Your task to perform on an android device: Empty the shopping cart on bestbuy.com. Search for corsair k70 on bestbuy.com, select the first entry, and add it to the cart. Image 0: 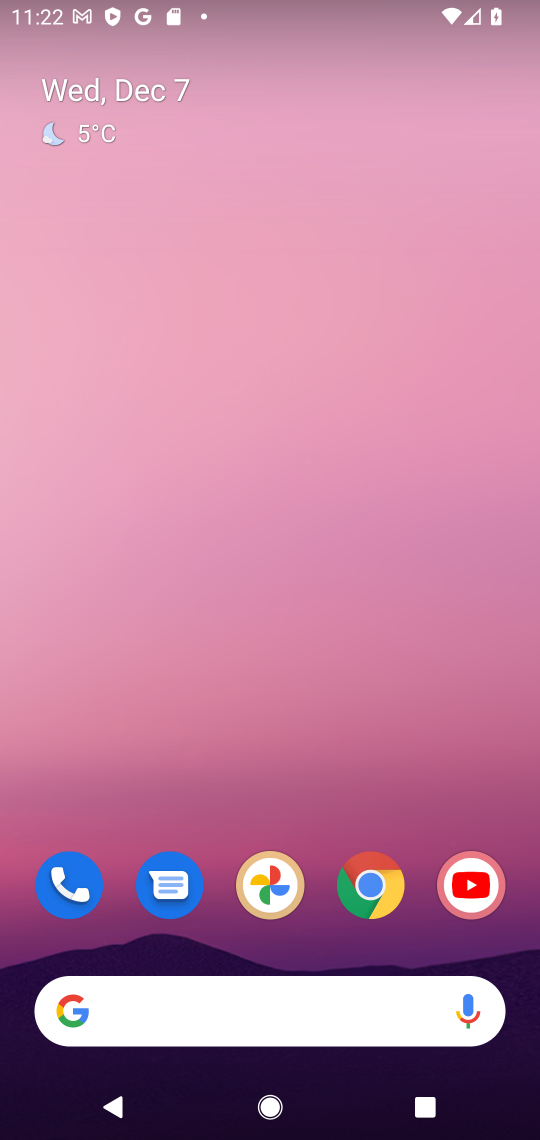
Step 0: click (372, 879)
Your task to perform on an android device: Empty the shopping cart on bestbuy.com. Search for corsair k70 on bestbuy.com, select the first entry, and add it to the cart. Image 1: 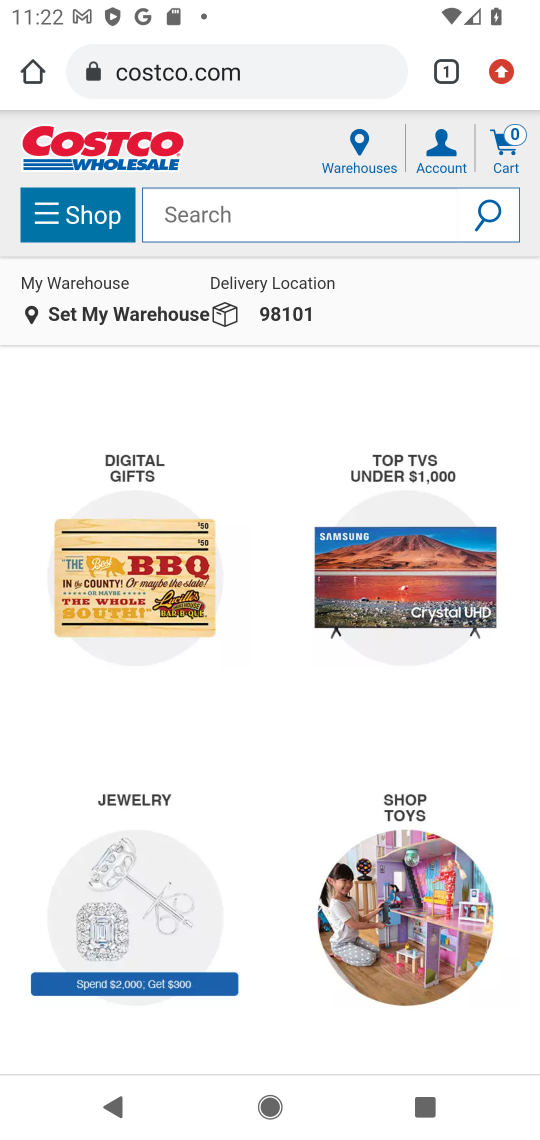
Step 1: click (288, 71)
Your task to perform on an android device: Empty the shopping cart on bestbuy.com. Search for corsair k70 on bestbuy.com, select the first entry, and add it to the cart. Image 2: 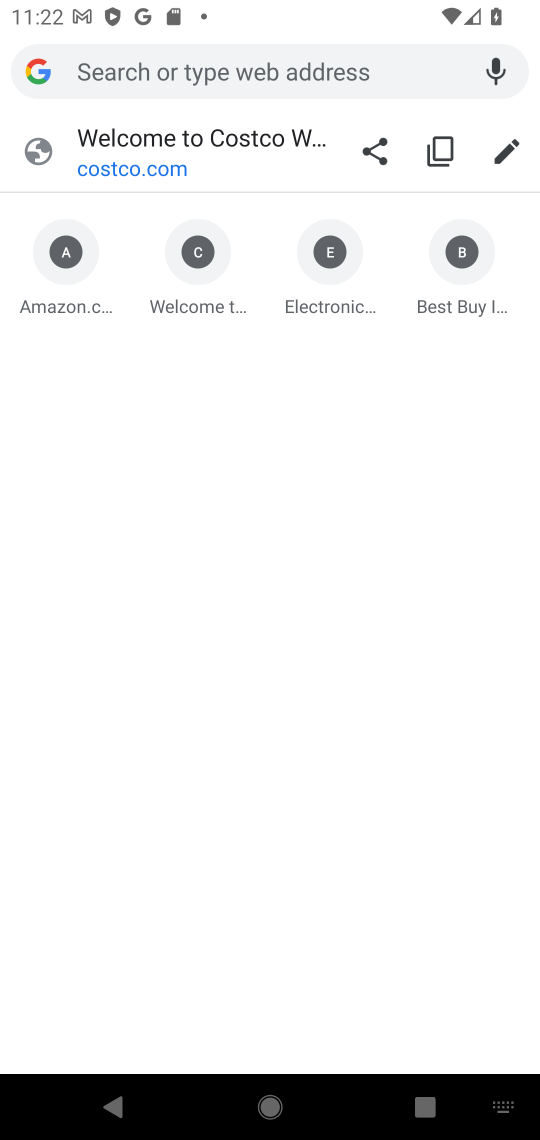
Step 2: type "BESTBUY"
Your task to perform on an android device: Empty the shopping cart on bestbuy.com. Search for corsair k70 on bestbuy.com, select the first entry, and add it to the cart. Image 3: 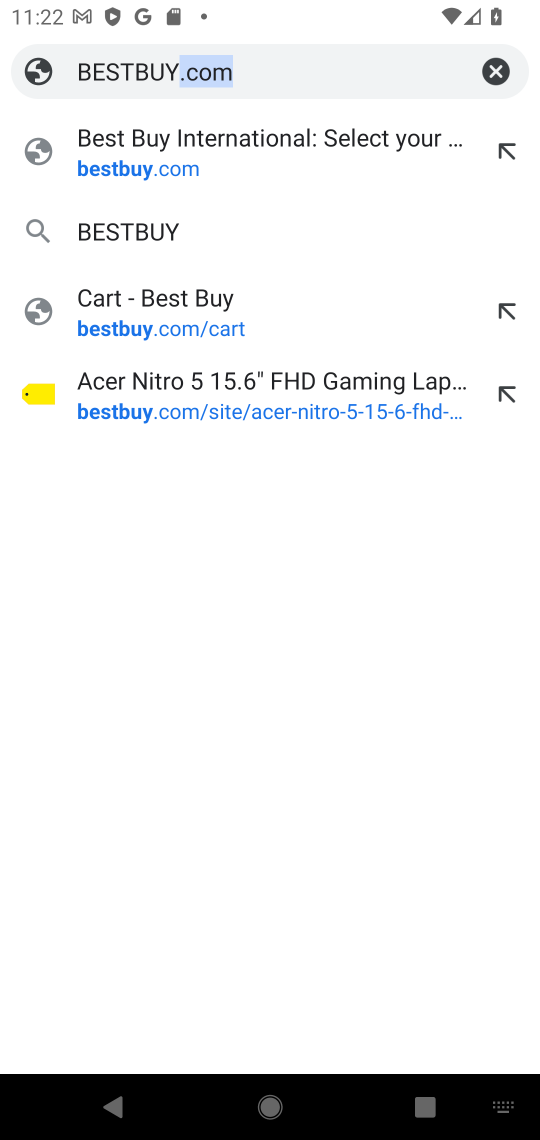
Step 3: click (205, 153)
Your task to perform on an android device: Empty the shopping cart on bestbuy.com. Search for corsair k70 on bestbuy.com, select the first entry, and add it to the cart. Image 4: 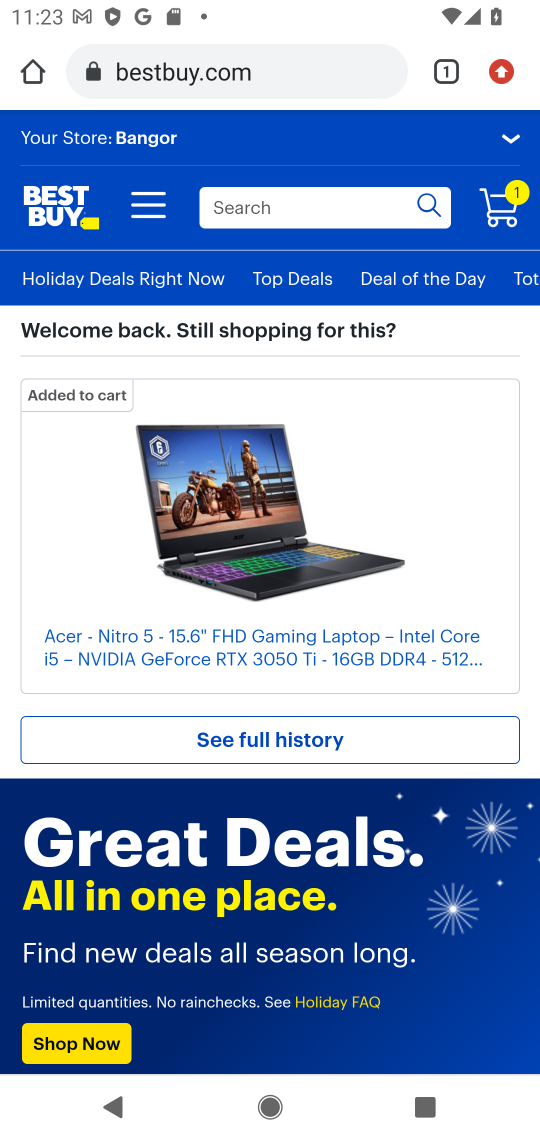
Step 4: click (506, 204)
Your task to perform on an android device: Empty the shopping cart on bestbuy.com. Search for corsair k70 on bestbuy.com, select the first entry, and add it to the cart. Image 5: 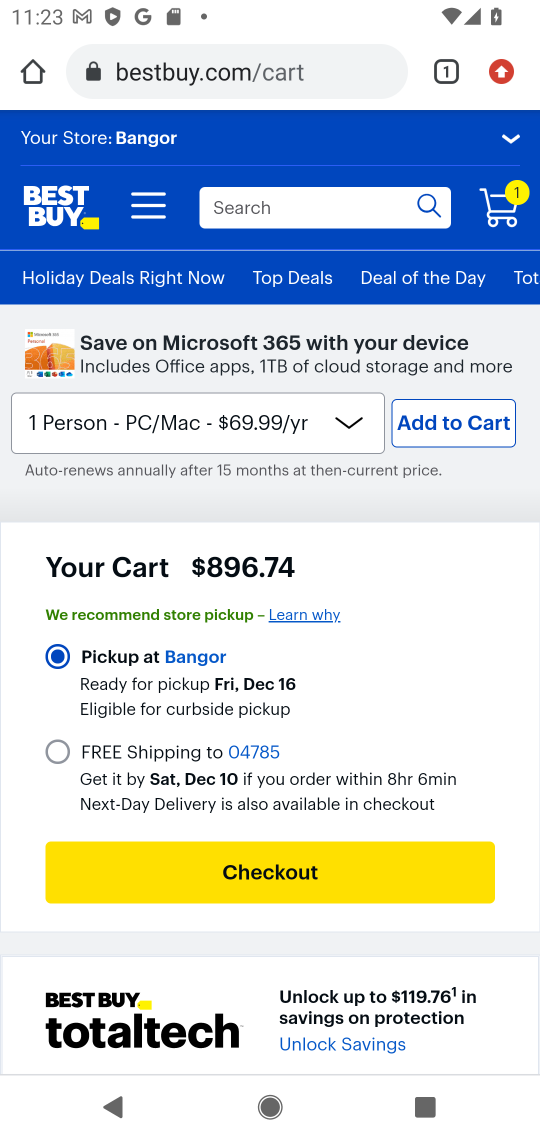
Step 5: drag from (261, 950) to (290, 337)
Your task to perform on an android device: Empty the shopping cart on bestbuy.com. Search for corsair k70 on bestbuy.com, select the first entry, and add it to the cart. Image 6: 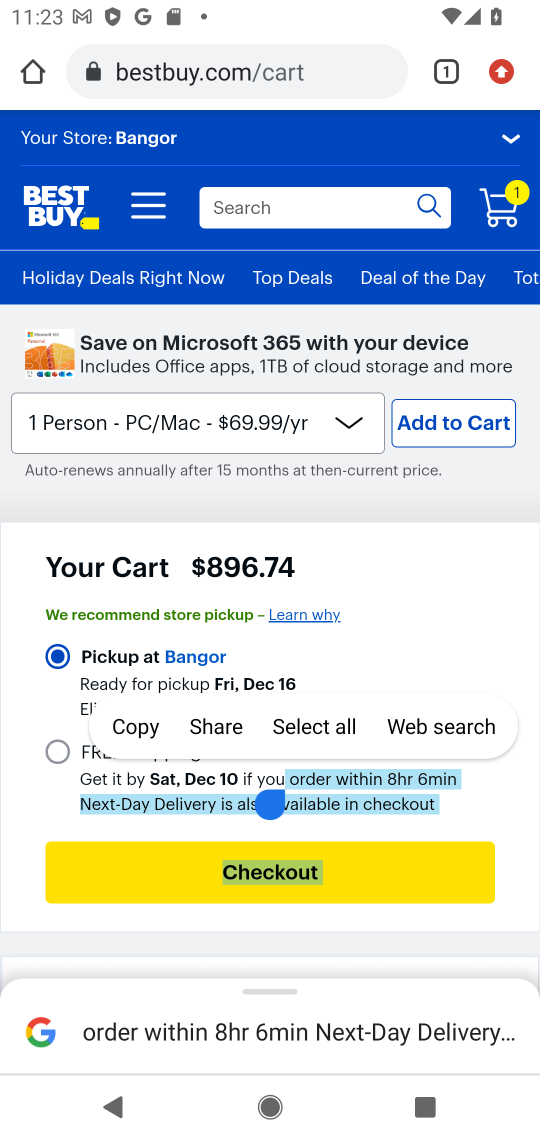
Step 6: click (437, 589)
Your task to perform on an android device: Empty the shopping cart on bestbuy.com. Search for corsair k70 on bestbuy.com, select the first entry, and add it to the cart. Image 7: 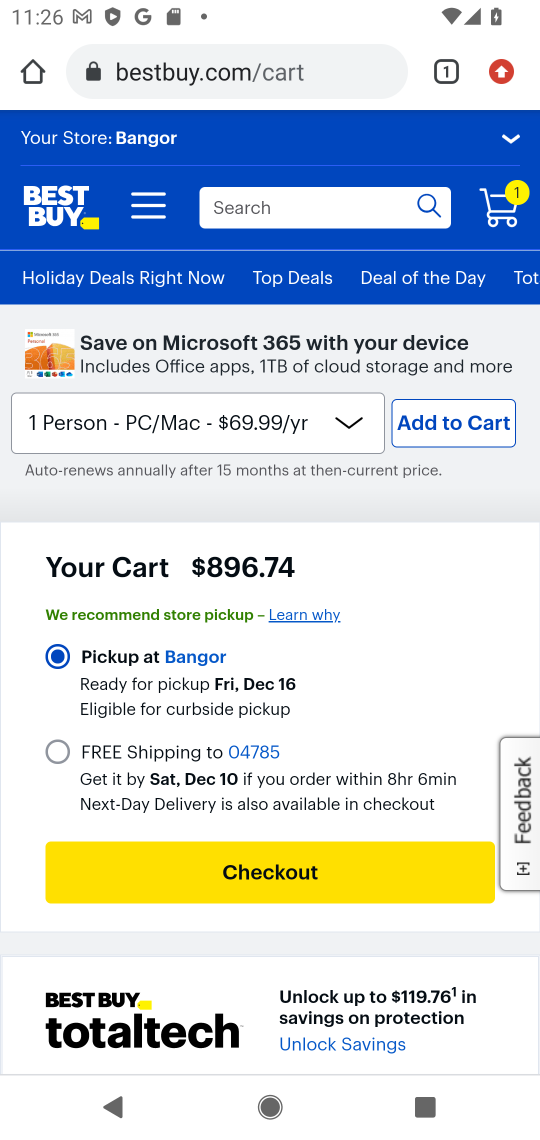
Step 7: task complete